Your task to perform on an android device: Show me recent news Image 0: 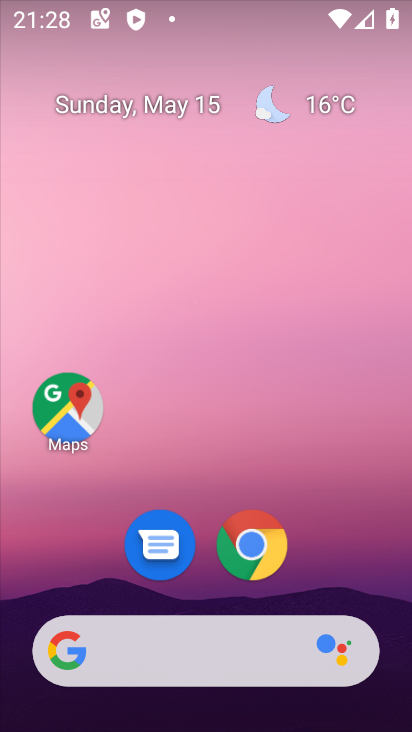
Step 0: drag from (316, 558) to (182, 127)
Your task to perform on an android device: Show me recent news Image 1: 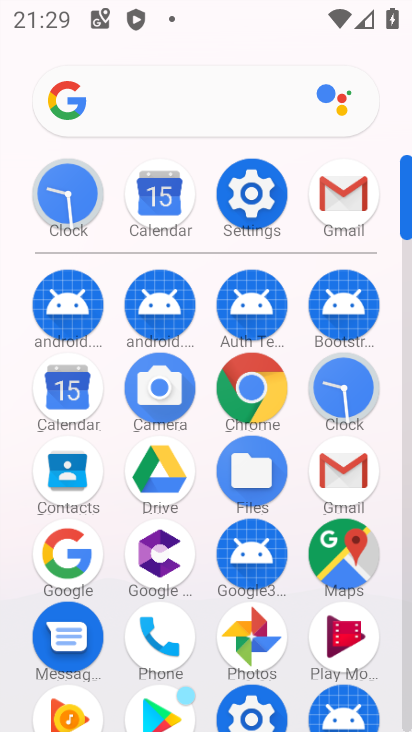
Step 1: click (64, 555)
Your task to perform on an android device: Show me recent news Image 2: 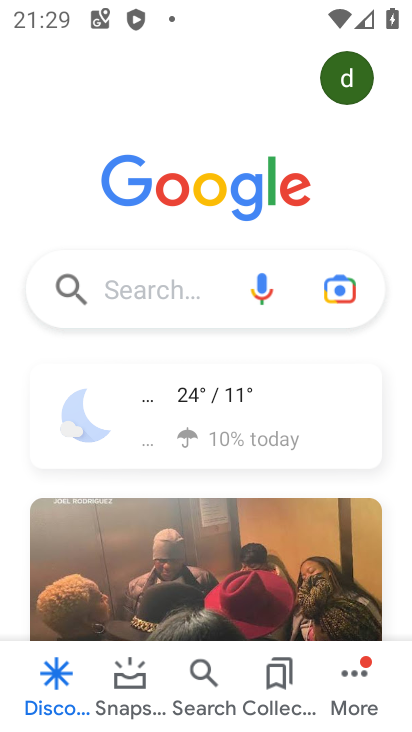
Step 2: click (152, 291)
Your task to perform on an android device: Show me recent news Image 3: 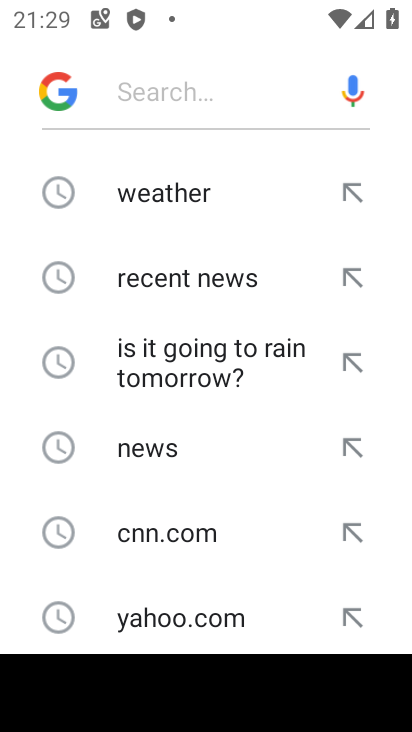
Step 3: type "recent news"
Your task to perform on an android device: Show me recent news Image 4: 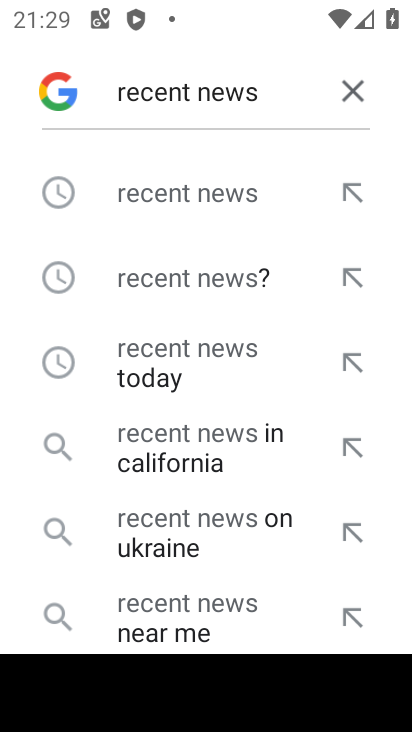
Step 4: click (199, 196)
Your task to perform on an android device: Show me recent news Image 5: 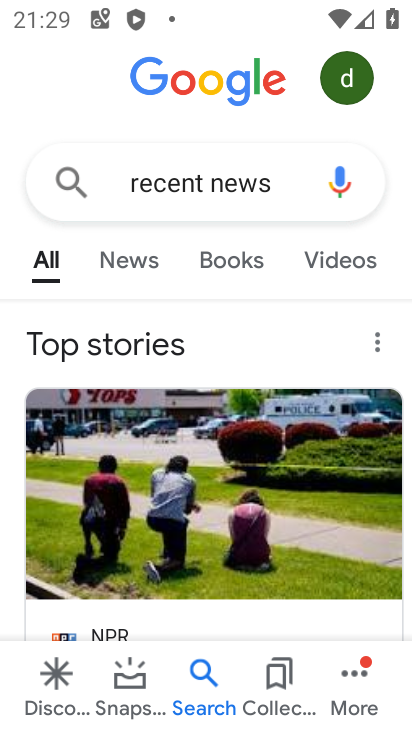
Step 5: task complete